Your task to perform on an android device: check data usage Image 0: 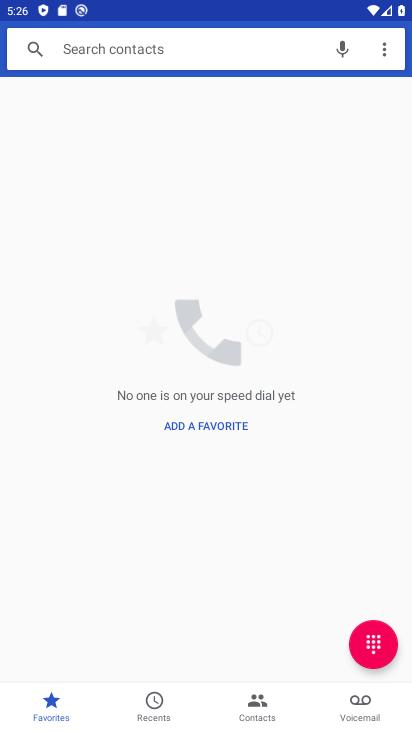
Step 0: drag from (245, 18) to (245, 397)
Your task to perform on an android device: check data usage Image 1: 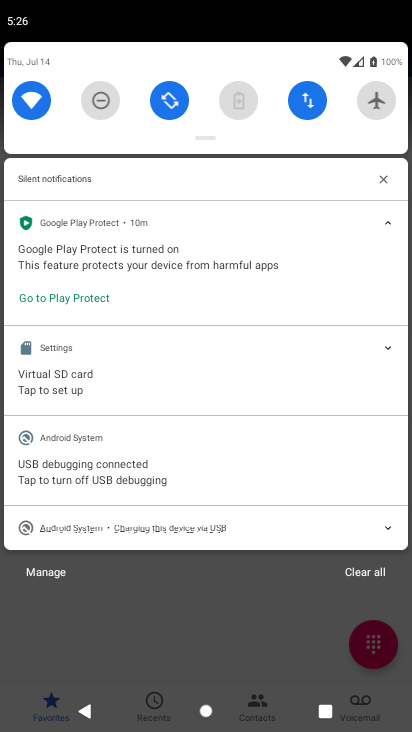
Step 1: click (308, 87)
Your task to perform on an android device: check data usage Image 2: 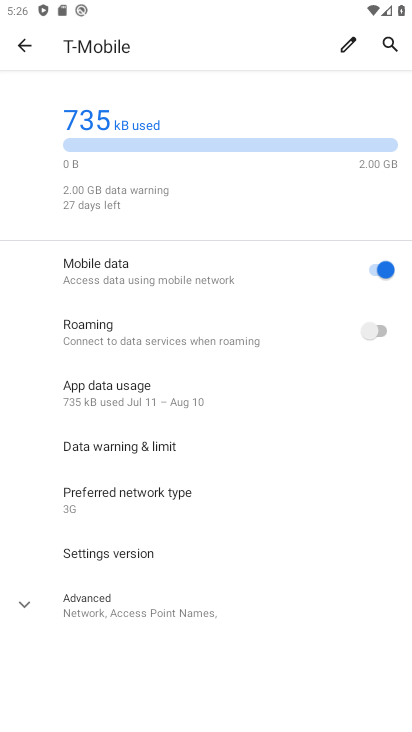
Step 2: task complete